Your task to perform on an android device: Open calendar and show me the fourth week of next month Image 0: 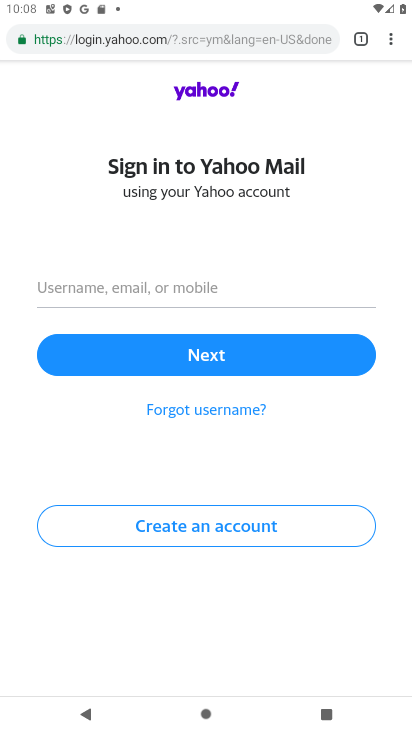
Step 0: press home button
Your task to perform on an android device: Open calendar and show me the fourth week of next month Image 1: 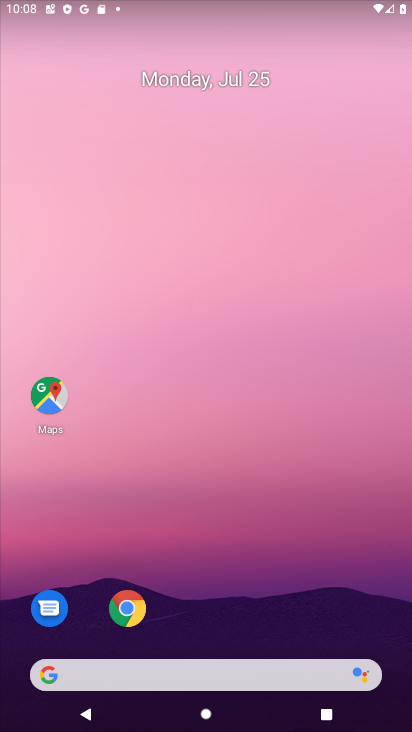
Step 1: drag from (184, 623) to (278, 84)
Your task to perform on an android device: Open calendar and show me the fourth week of next month Image 2: 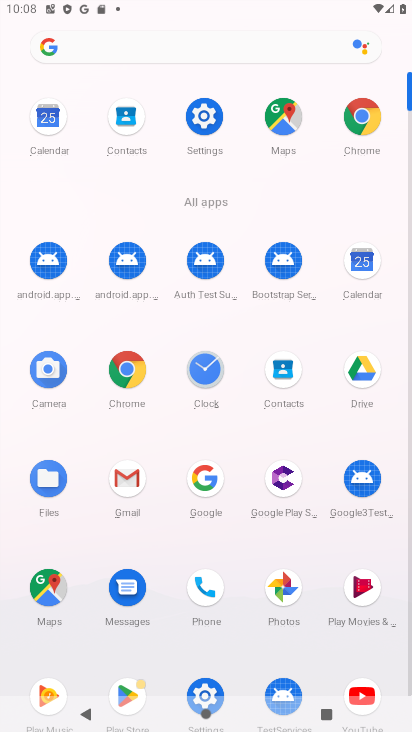
Step 2: click (60, 128)
Your task to perform on an android device: Open calendar and show me the fourth week of next month Image 3: 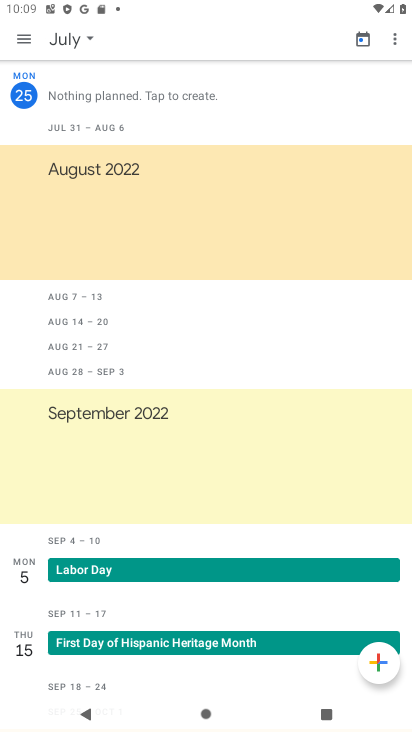
Step 3: click (81, 43)
Your task to perform on an android device: Open calendar and show me the fourth week of next month Image 4: 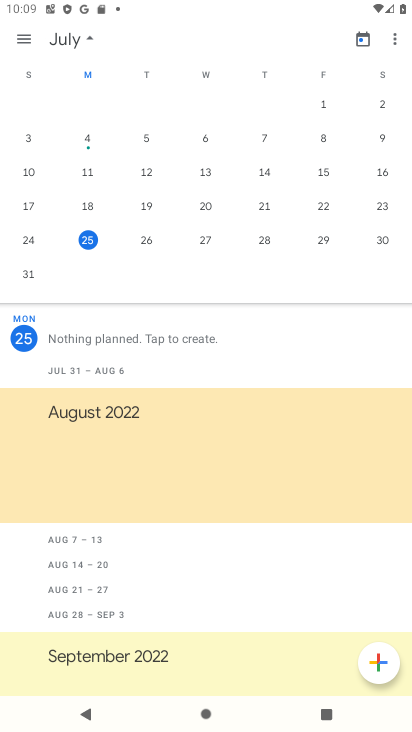
Step 4: drag from (325, 208) to (4, 171)
Your task to perform on an android device: Open calendar and show me the fourth week of next month Image 5: 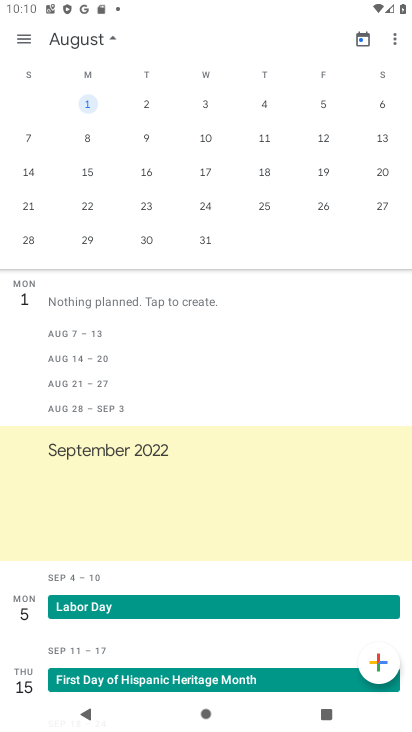
Step 5: click (29, 211)
Your task to perform on an android device: Open calendar and show me the fourth week of next month Image 6: 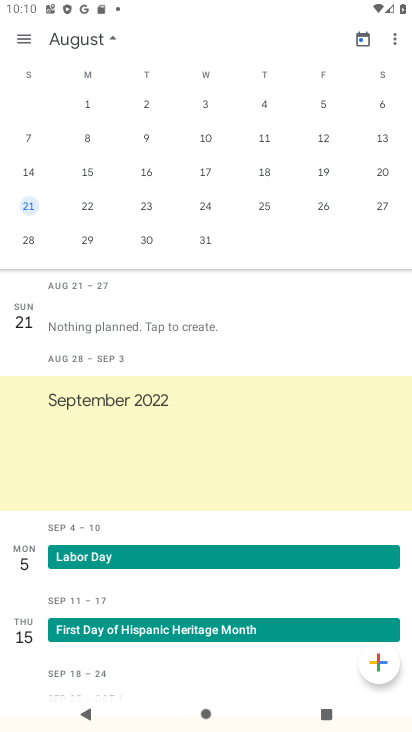
Step 6: task complete